Your task to perform on an android device: Open ESPN.com Image 0: 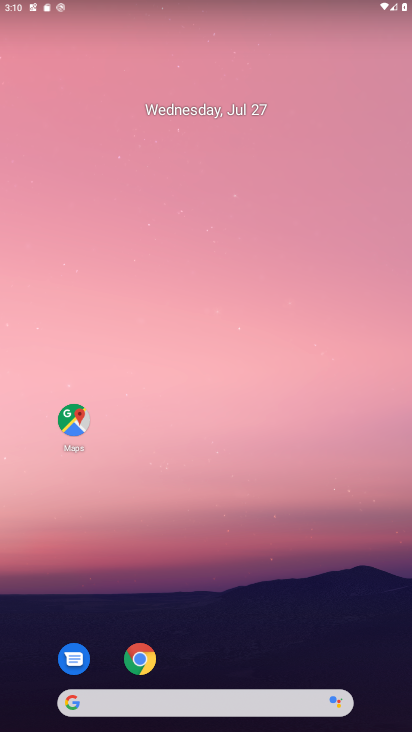
Step 0: drag from (224, 595) to (356, 0)
Your task to perform on an android device: Open ESPN.com Image 1: 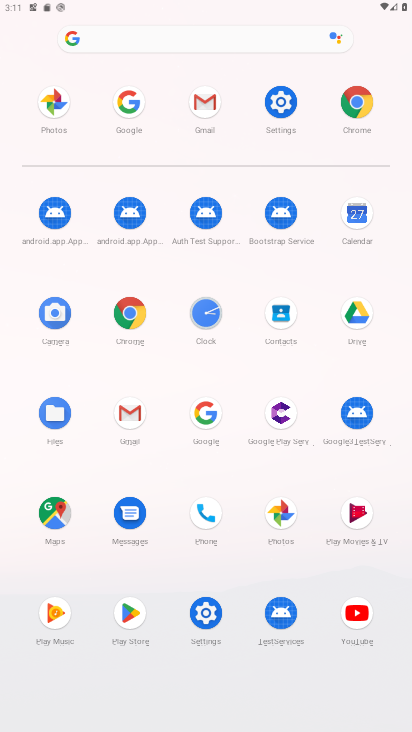
Step 1: click (350, 114)
Your task to perform on an android device: Open ESPN.com Image 2: 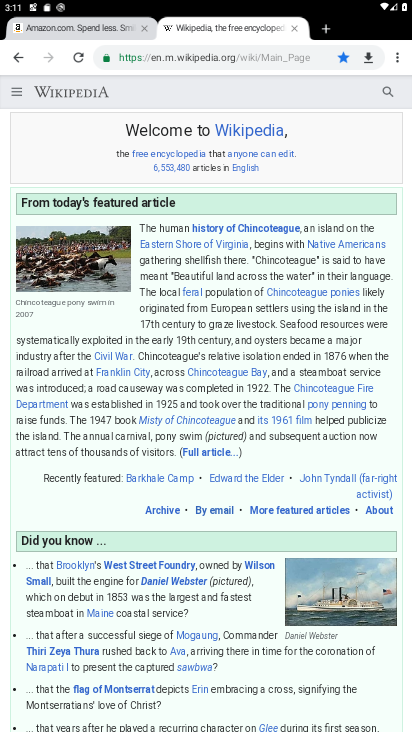
Step 2: click (17, 56)
Your task to perform on an android device: Open ESPN.com Image 3: 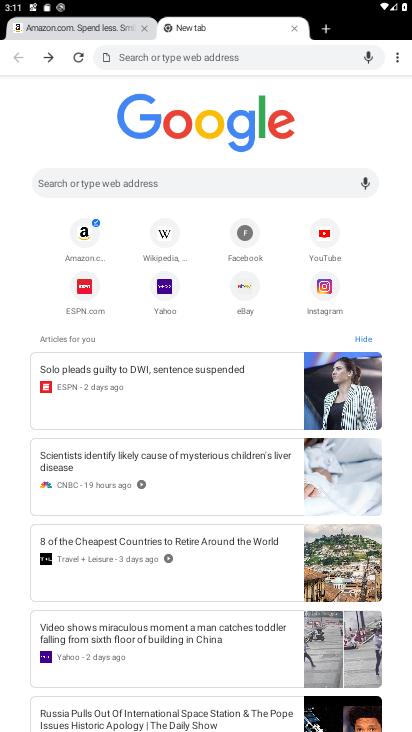
Step 3: click (85, 294)
Your task to perform on an android device: Open ESPN.com Image 4: 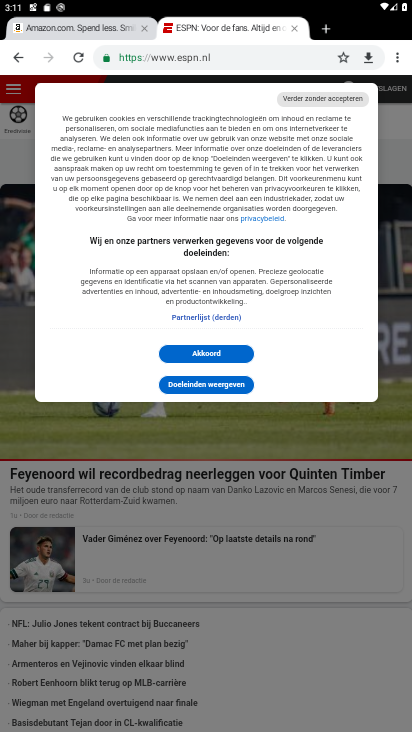
Step 4: task complete